Your task to perform on an android device: Open the web browser Image 0: 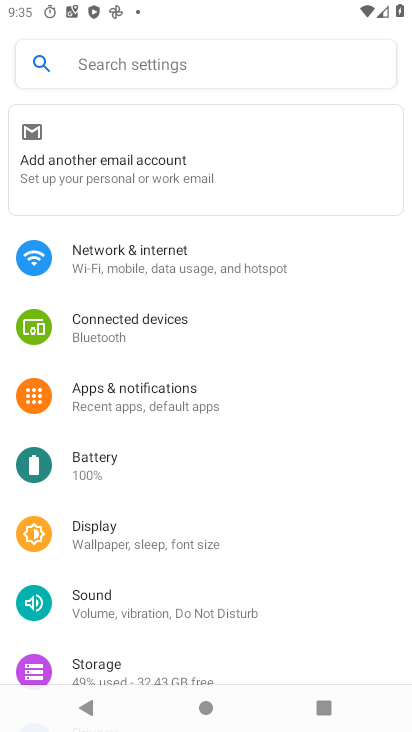
Step 0: press home button
Your task to perform on an android device: Open the web browser Image 1: 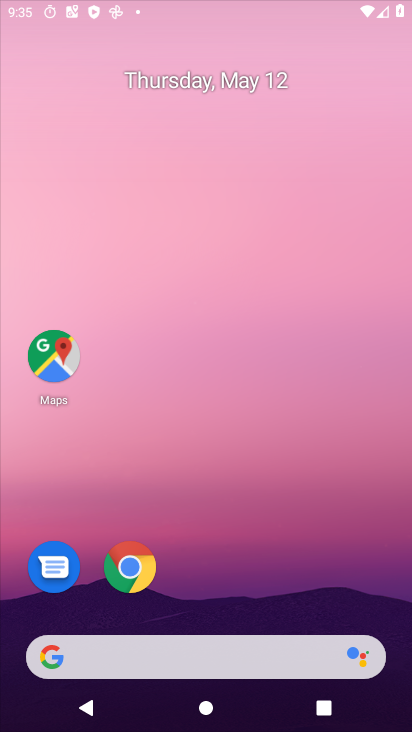
Step 1: drag from (230, 631) to (251, 195)
Your task to perform on an android device: Open the web browser Image 2: 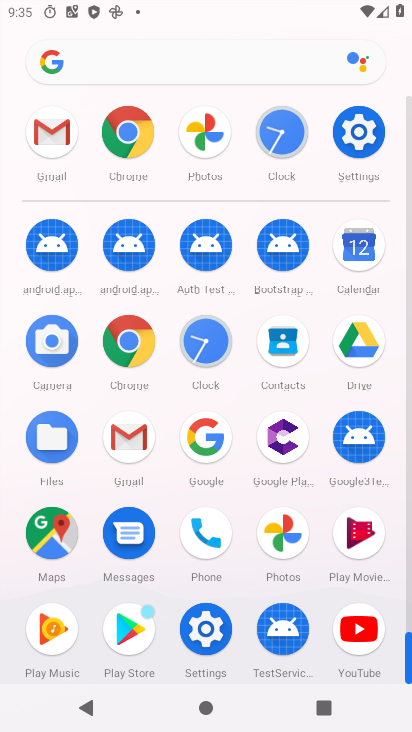
Step 2: click (127, 147)
Your task to perform on an android device: Open the web browser Image 3: 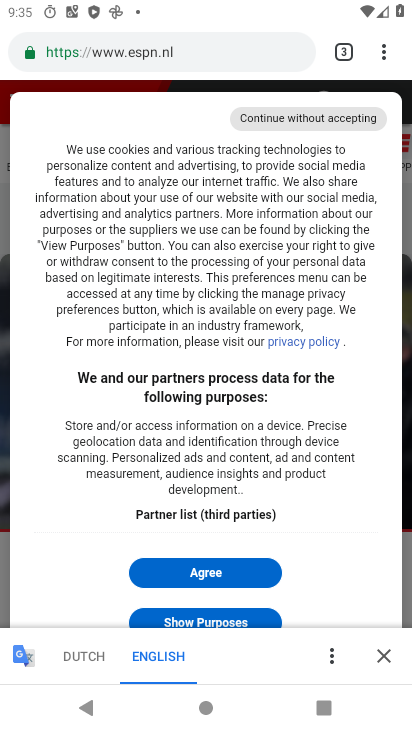
Step 3: task complete